Your task to perform on an android device: Open internet settings Image 0: 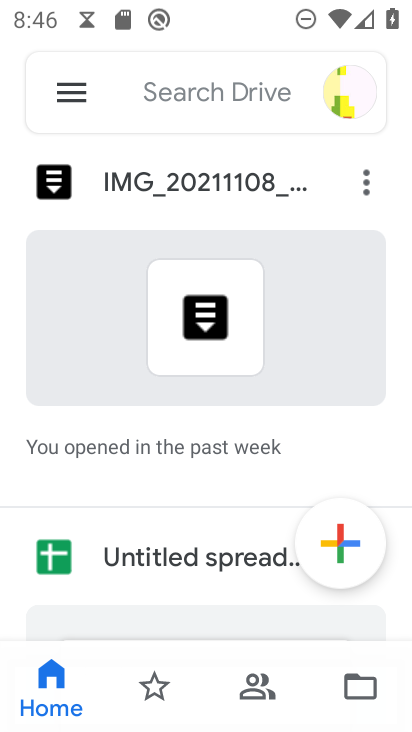
Step 0: press home button
Your task to perform on an android device: Open internet settings Image 1: 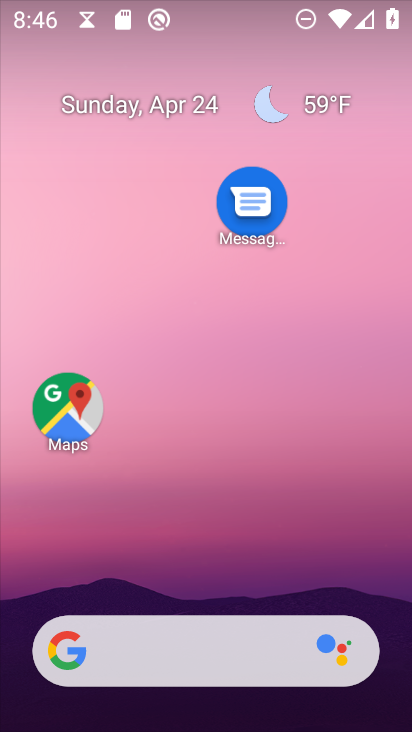
Step 1: drag from (159, 603) to (306, 47)
Your task to perform on an android device: Open internet settings Image 2: 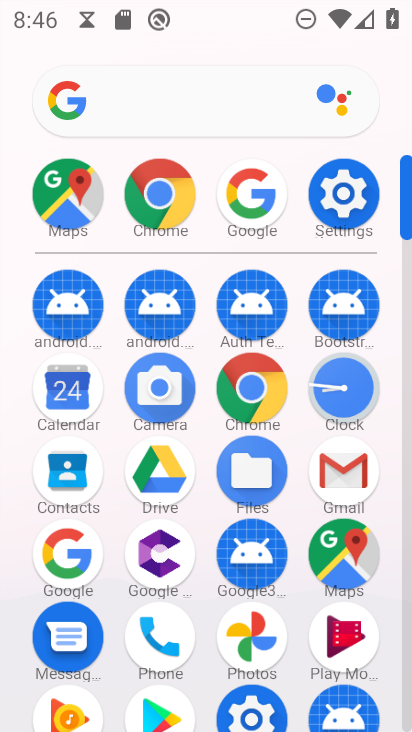
Step 2: click (338, 195)
Your task to perform on an android device: Open internet settings Image 3: 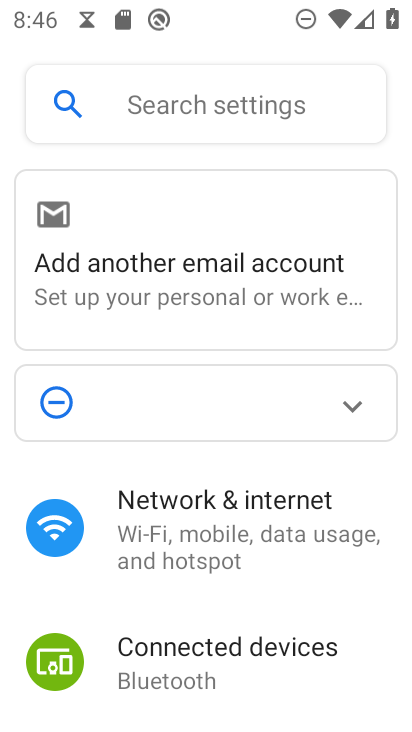
Step 3: click (202, 505)
Your task to perform on an android device: Open internet settings Image 4: 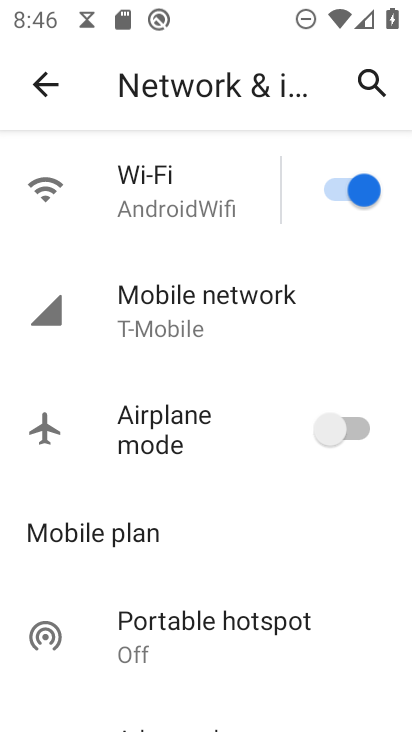
Step 4: click (178, 210)
Your task to perform on an android device: Open internet settings Image 5: 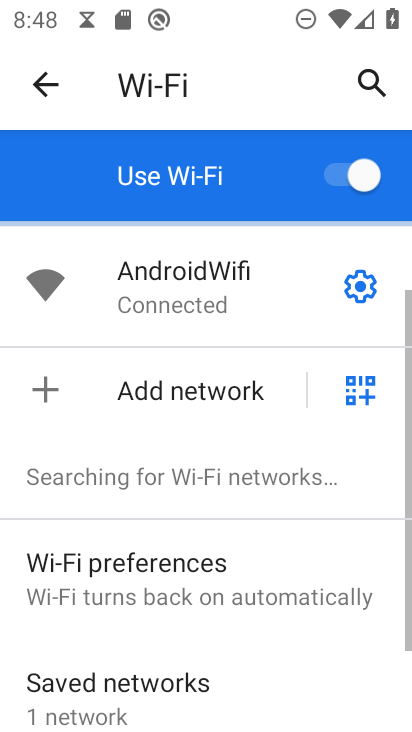
Step 5: task complete